Your task to perform on an android device: change the clock display to analog Image 0: 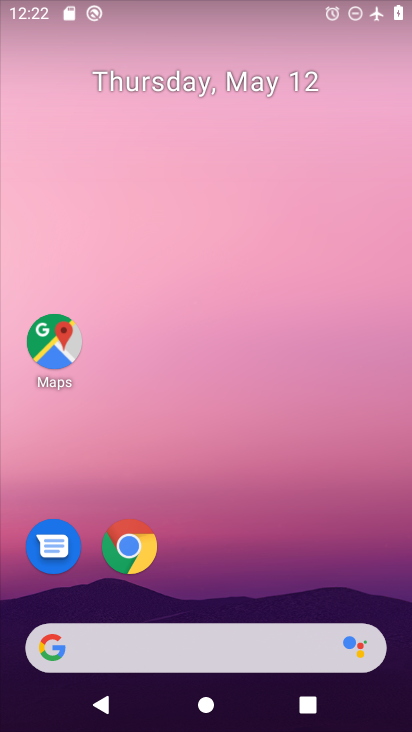
Step 0: drag from (402, 636) to (253, 77)
Your task to perform on an android device: change the clock display to analog Image 1: 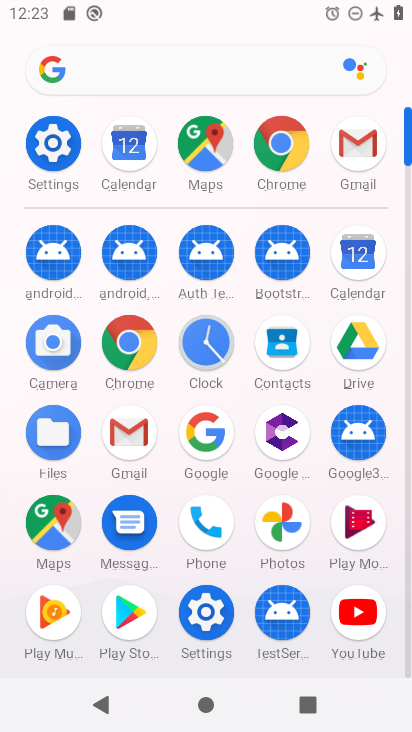
Step 1: click (179, 350)
Your task to perform on an android device: change the clock display to analog Image 2: 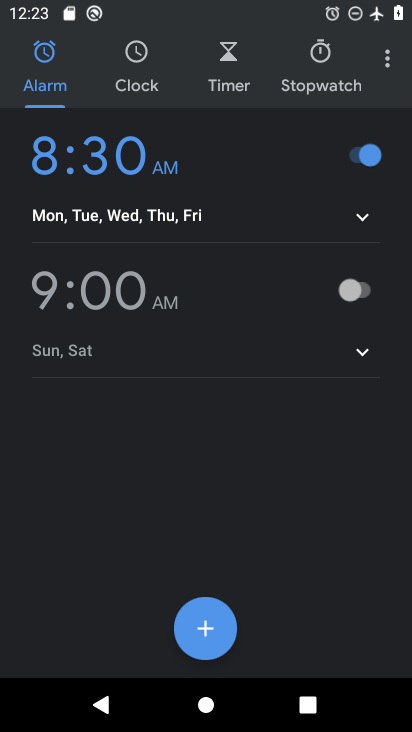
Step 2: click (396, 60)
Your task to perform on an android device: change the clock display to analog Image 3: 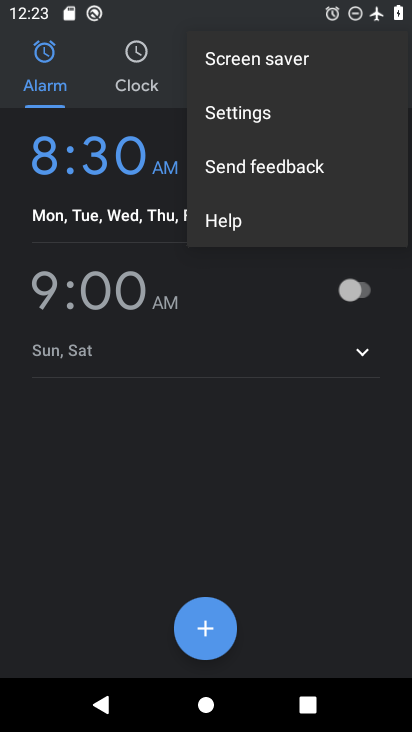
Step 3: click (288, 112)
Your task to perform on an android device: change the clock display to analog Image 4: 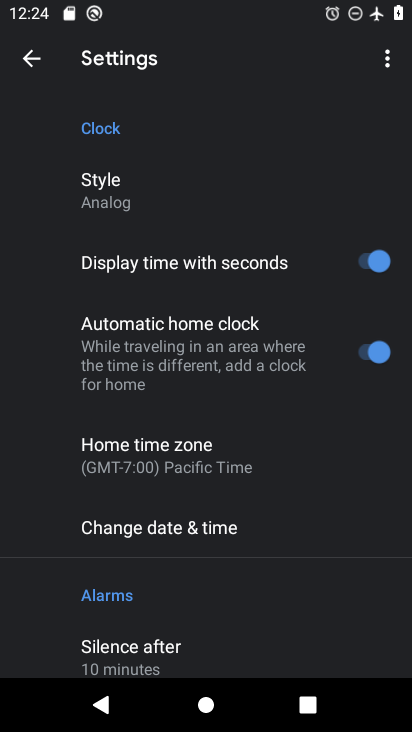
Step 4: click (168, 202)
Your task to perform on an android device: change the clock display to analog Image 5: 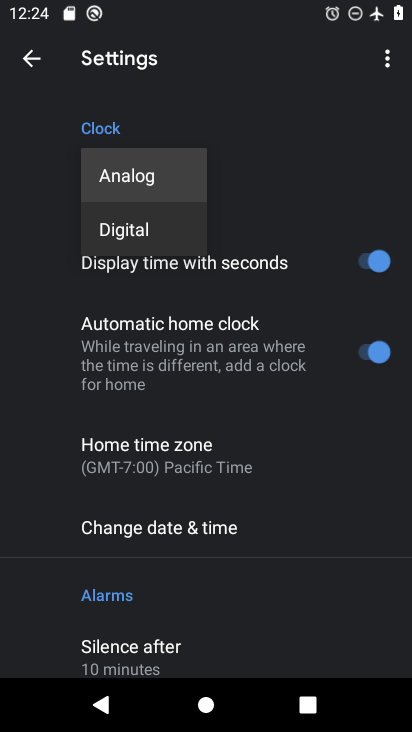
Step 5: task complete